Your task to perform on an android device: toggle sleep mode Image 0: 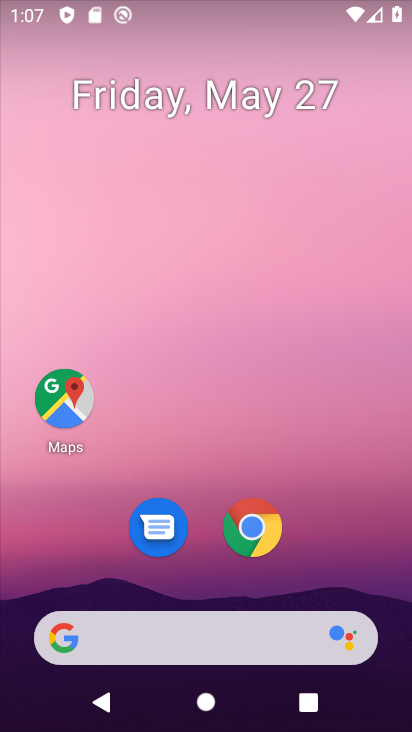
Step 0: drag from (284, 6) to (259, 637)
Your task to perform on an android device: toggle sleep mode Image 1: 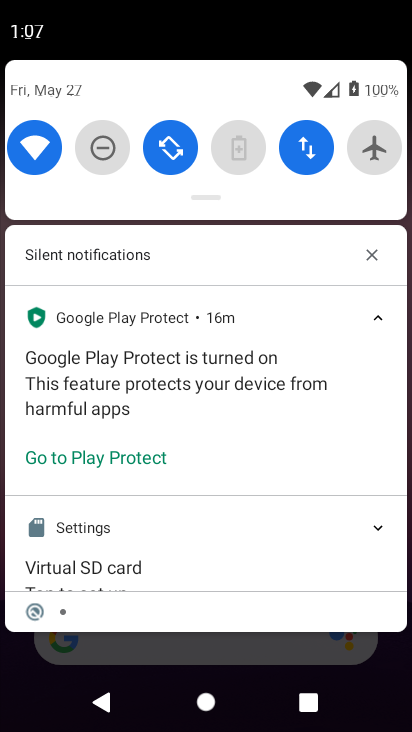
Step 1: drag from (221, 183) to (242, 720)
Your task to perform on an android device: toggle sleep mode Image 2: 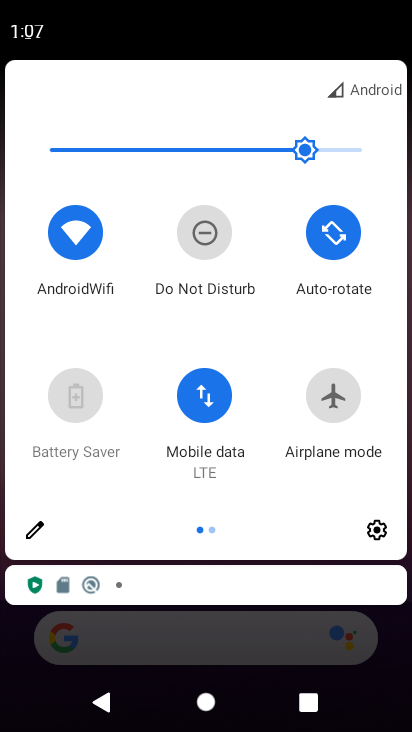
Step 2: click (32, 484)
Your task to perform on an android device: toggle sleep mode Image 3: 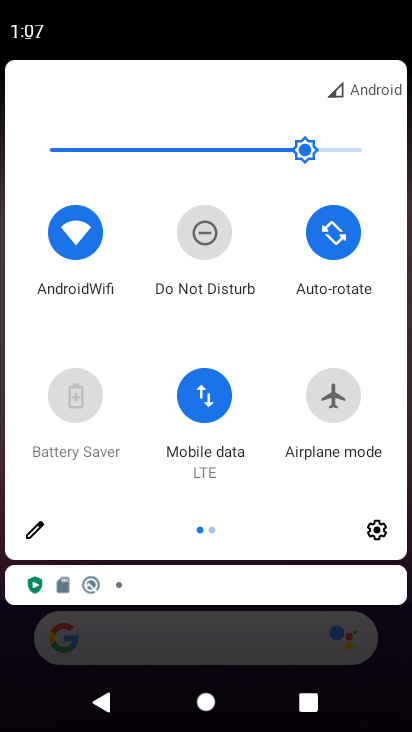
Step 3: drag from (281, 478) to (299, 275)
Your task to perform on an android device: toggle sleep mode Image 4: 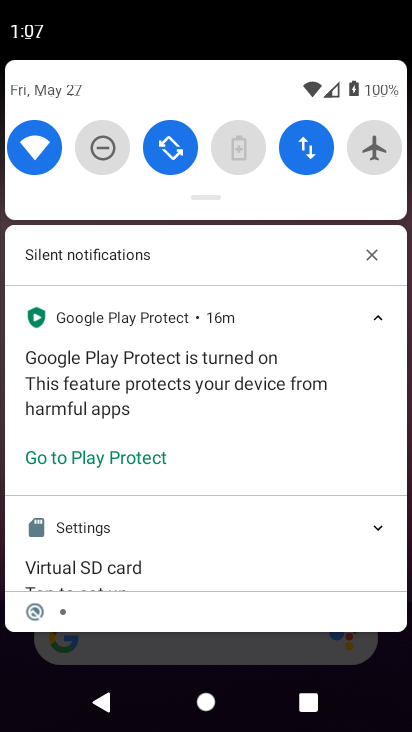
Step 4: click (38, 466)
Your task to perform on an android device: toggle sleep mode Image 5: 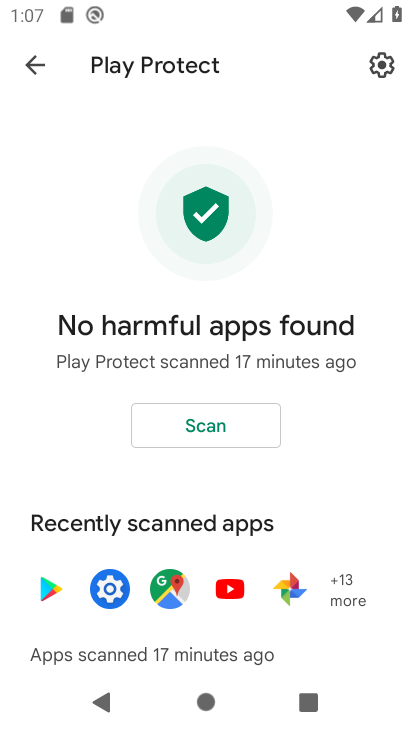
Step 5: task complete